Your task to perform on an android device: turn on javascript in the chrome app Image 0: 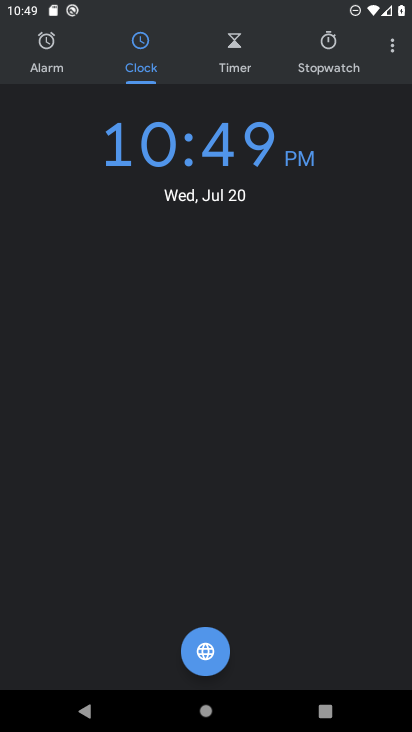
Step 0: press home button
Your task to perform on an android device: turn on javascript in the chrome app Image 1: 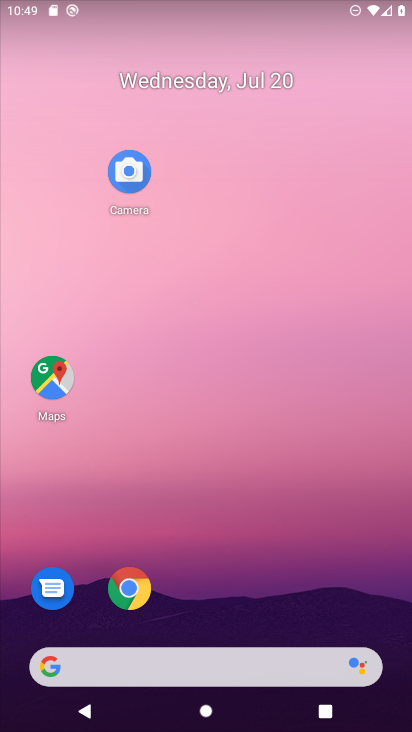
Step 1: click (128, 587)
Your task to perform on an android device: turn on javascript in the chrome app Image 2: 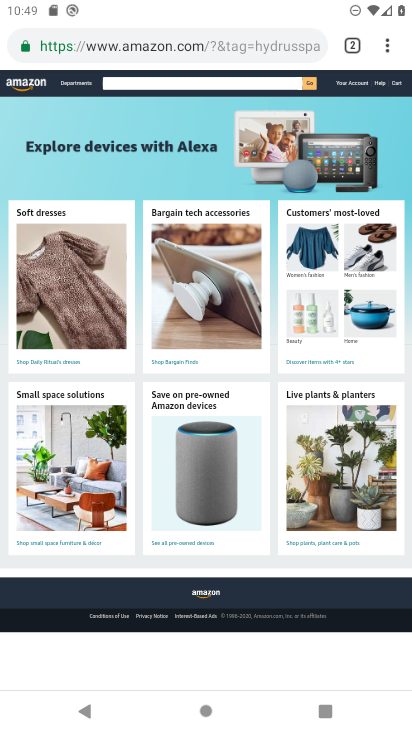
Step 2: drag from (387, 53) to (251, 556)
Your task to perform on an android device: turn on javascript in the chrome app Image 3: 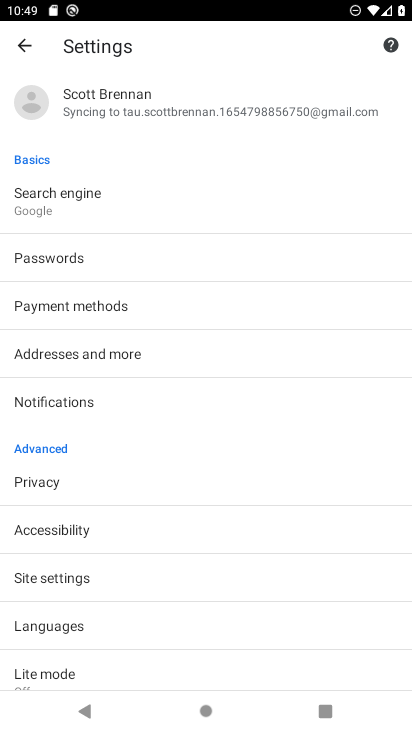
Step 3: click (33, 576)
Your task to perform on an android device: turn on javascript in the chrome app Image 4: 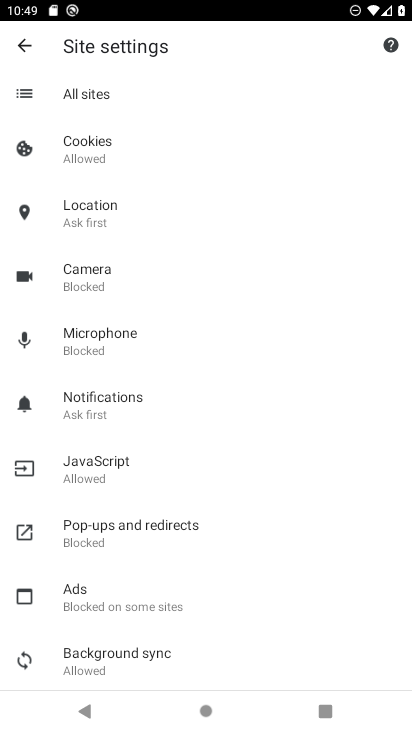
Step 4: click (83, 470)
Your task to perform on an android device: turn on javascript in the chrome app Image 5: 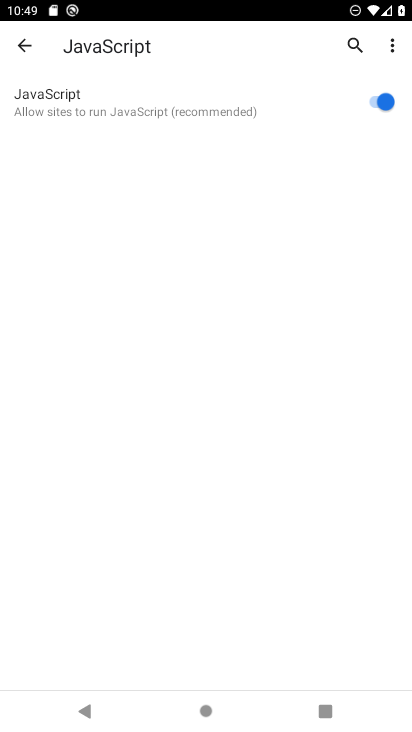
Step 5: task complete